Your task to perform on an android device: Search for razer blade on amazon, select the first entry, and add it to the cart. Image 0: 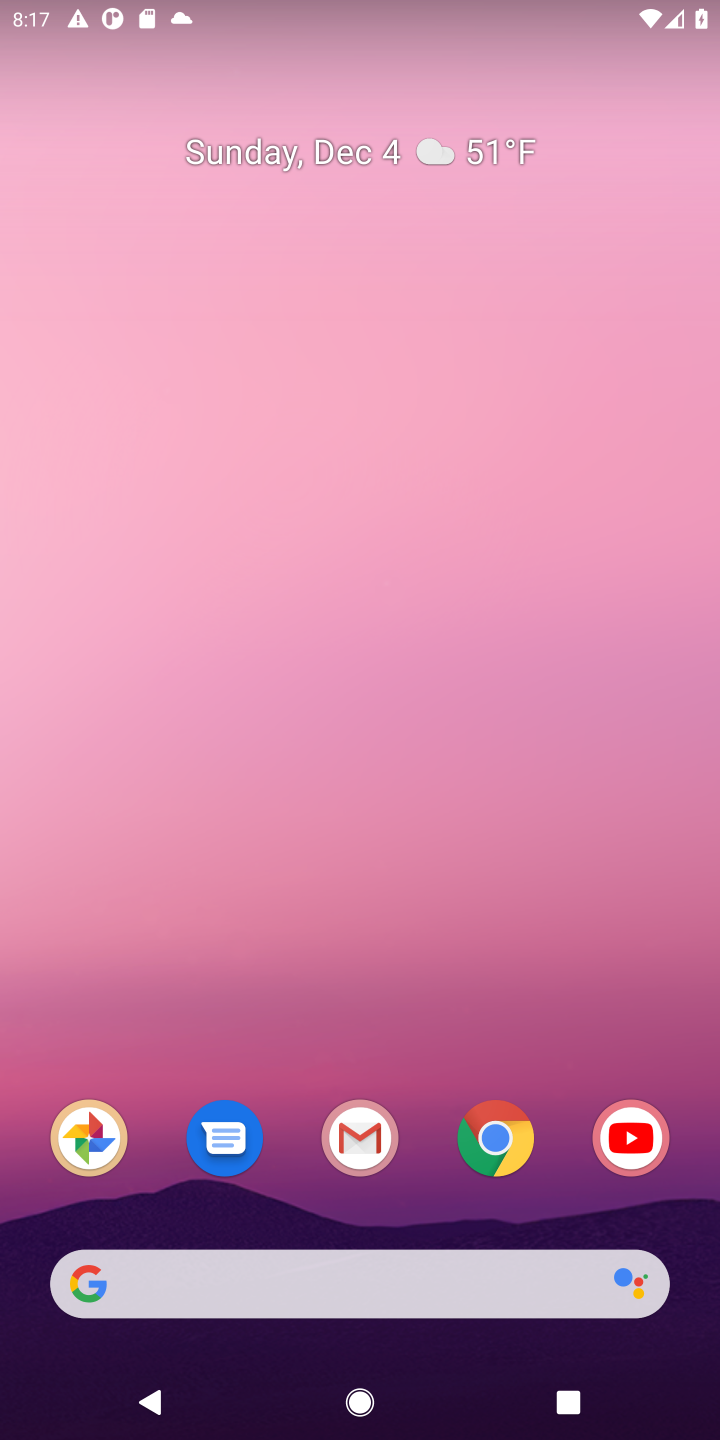
Step 0: click (514, 1146)
Your task to perform on an android device: Search for razer blade on amazon, select the first entry, and add it to the cart. Image 1: 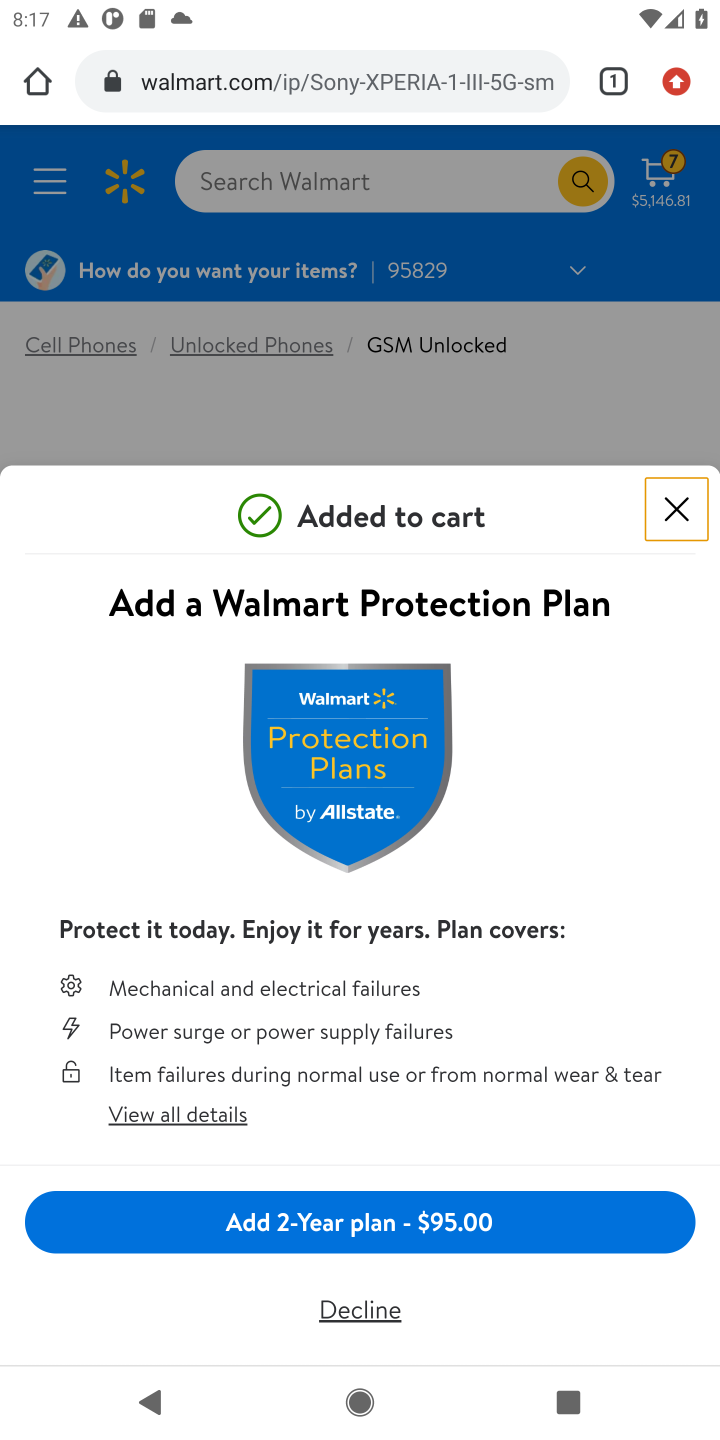
Step 1: click (336, 77)
Your task to perform on an android device: Search for razer blade on amazon, select the first entry, and add it to the cart. Image 2: 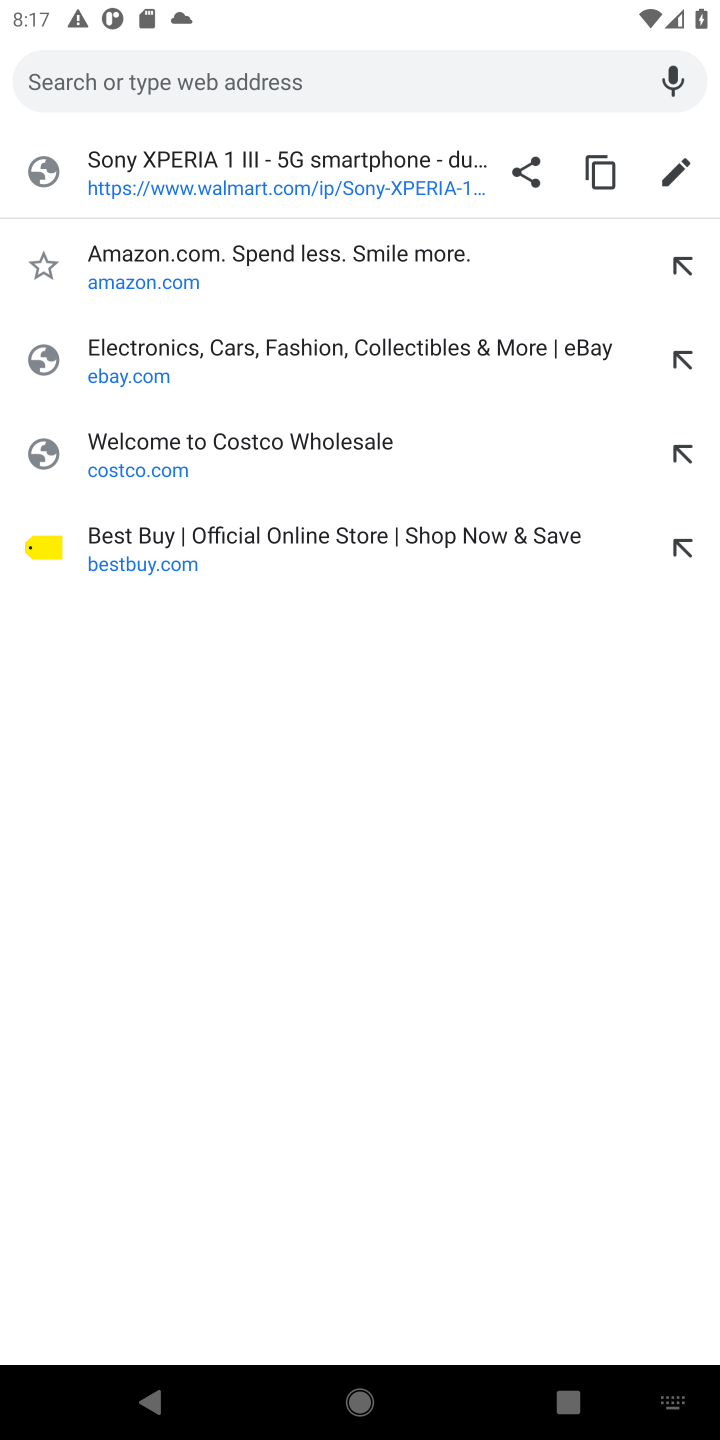
Step 2: click (207, 243)
Your task to perform on an android device: Search for razer blade on amazon, select the first entry, and add it to the cart. Image 3: 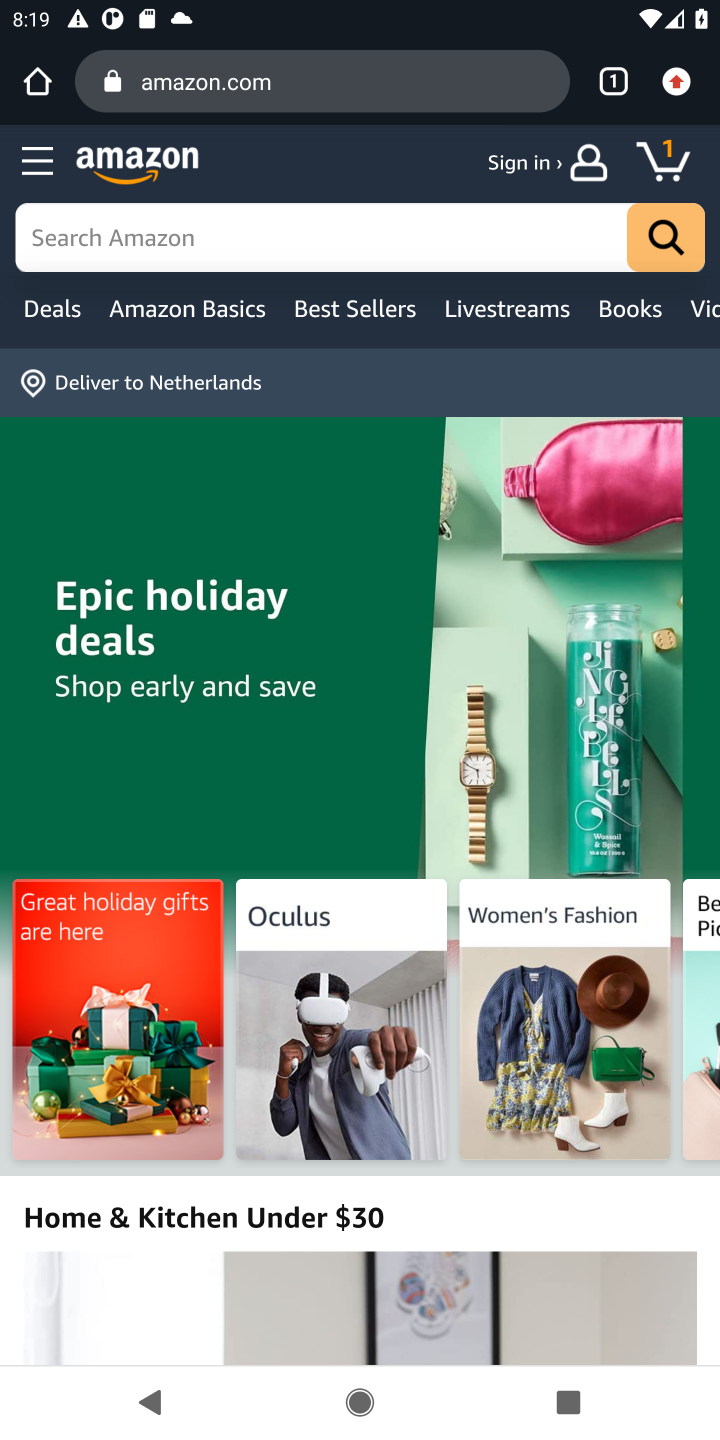
Step 3: click (398, 242)
Your task to perform on an android device: Search for razer blade on amazon, select the first entry, and add it to the cart. Image 4: 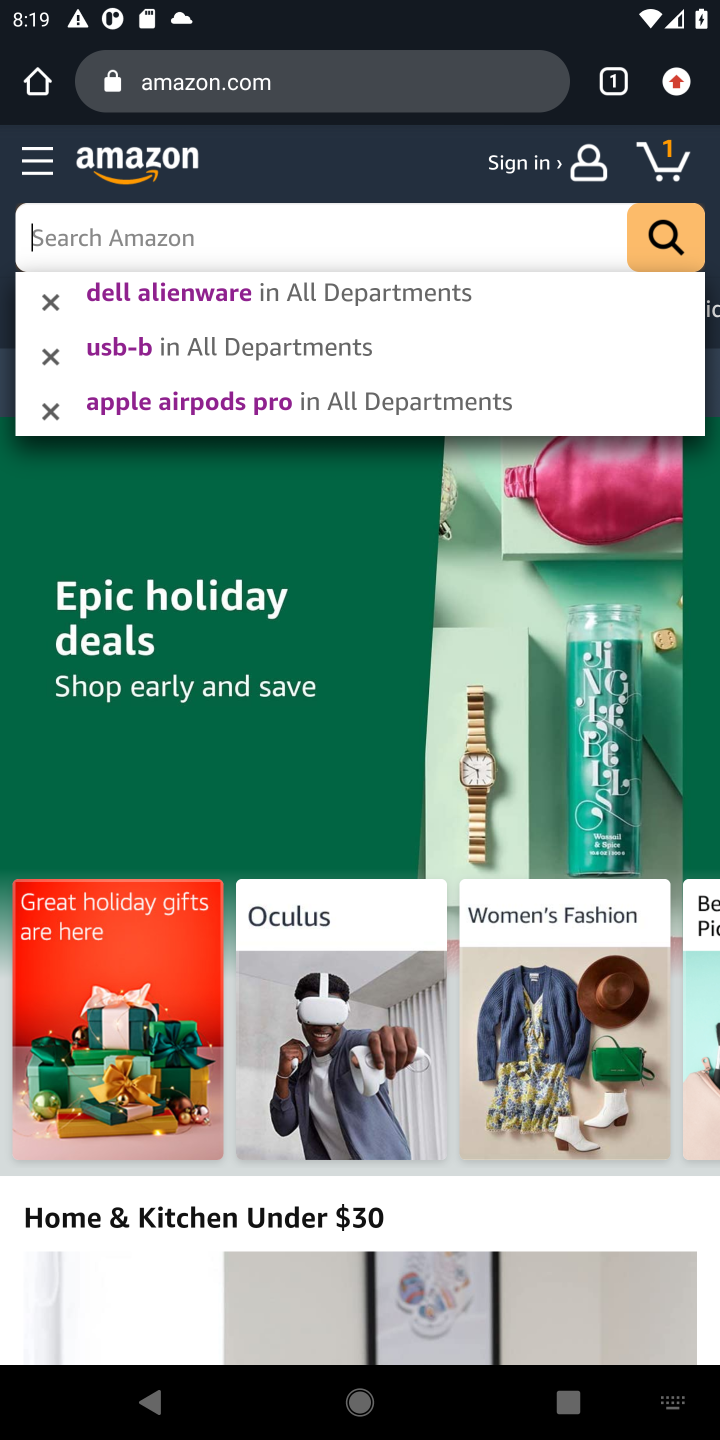
Step 4: press enter
Your task to perform on an android device: Search for razer blade on amazon, select the first entry, and add it to the cart. Image 5: 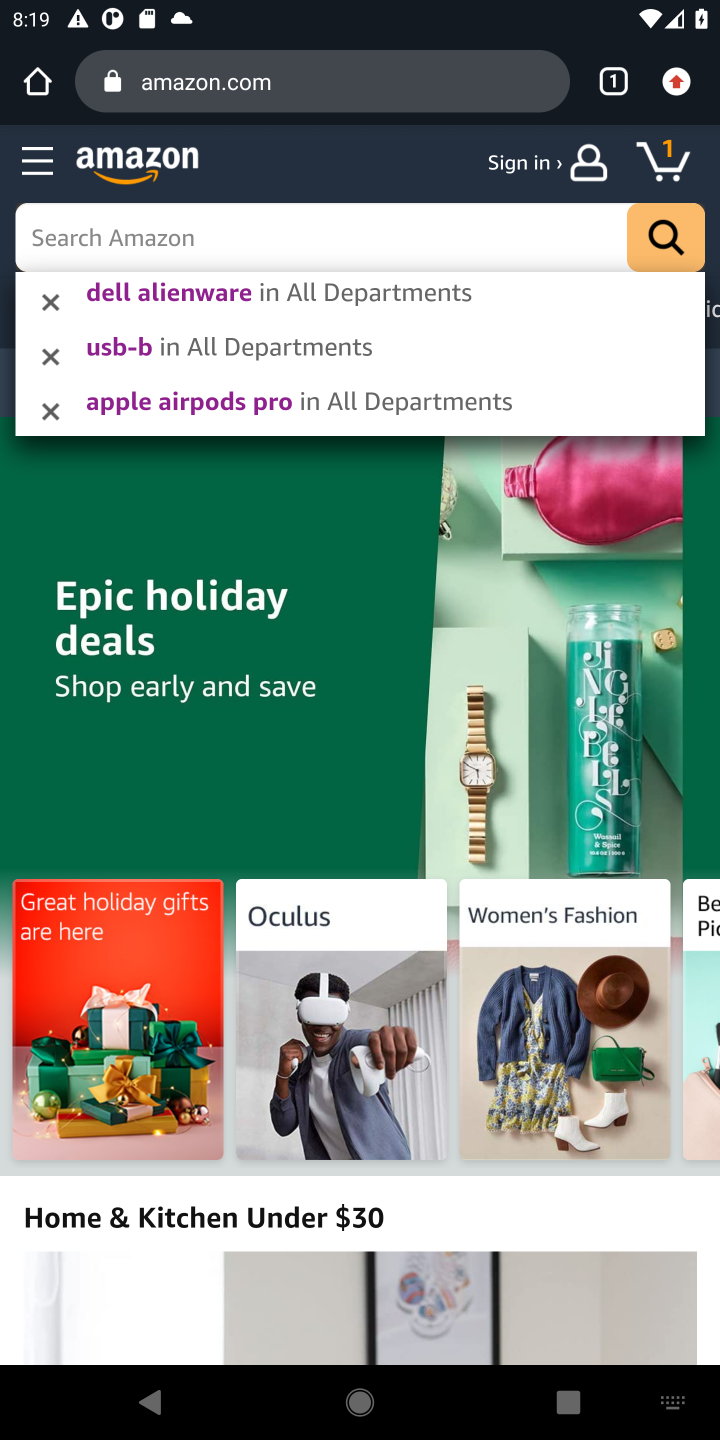
Step 5: type "razer blade"
Your task to perform on an android device: Search for razer blade on amazon, select the first entry, and add it to the cart. Image 6: 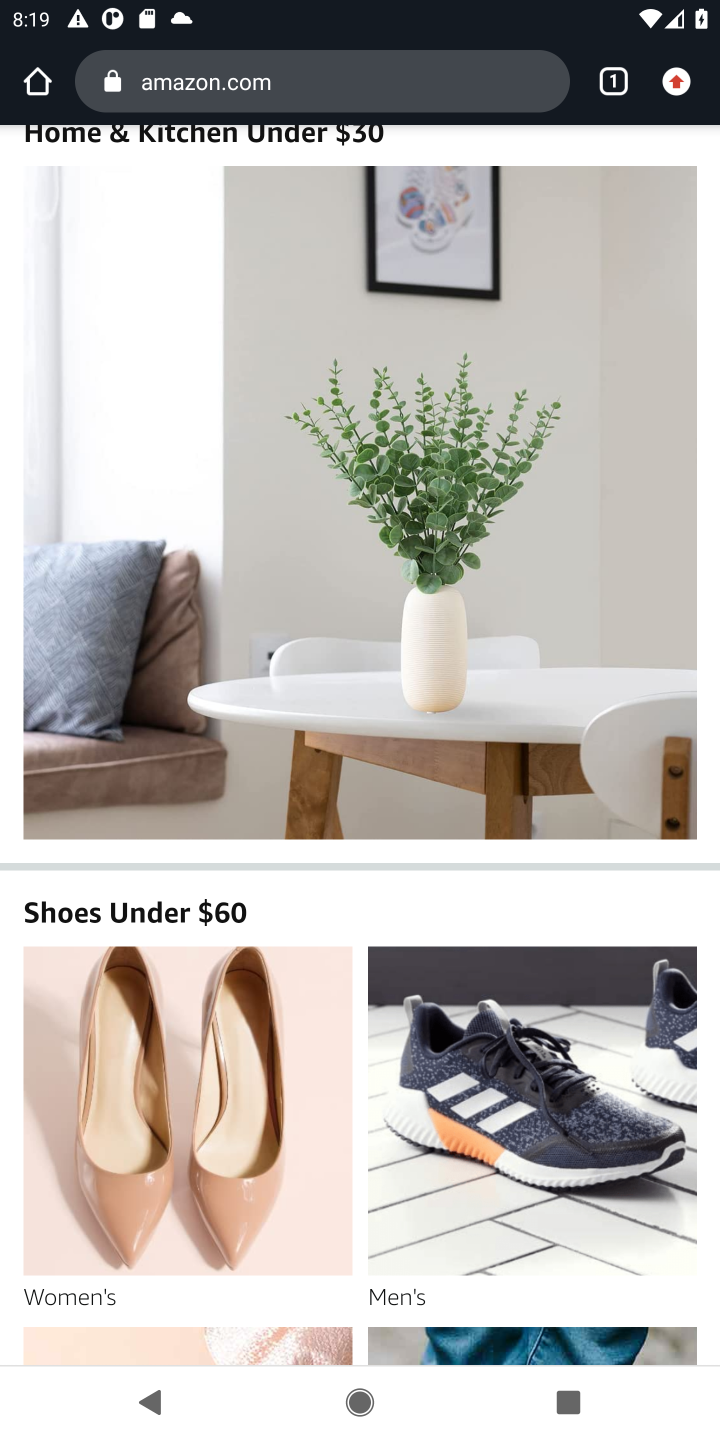
Step 6: drag from (538, 520) to (649, 1138)
Your task to perform on an android device: Search for razer blade on amazon, select the first entry, and add it to the cart. Image 7: 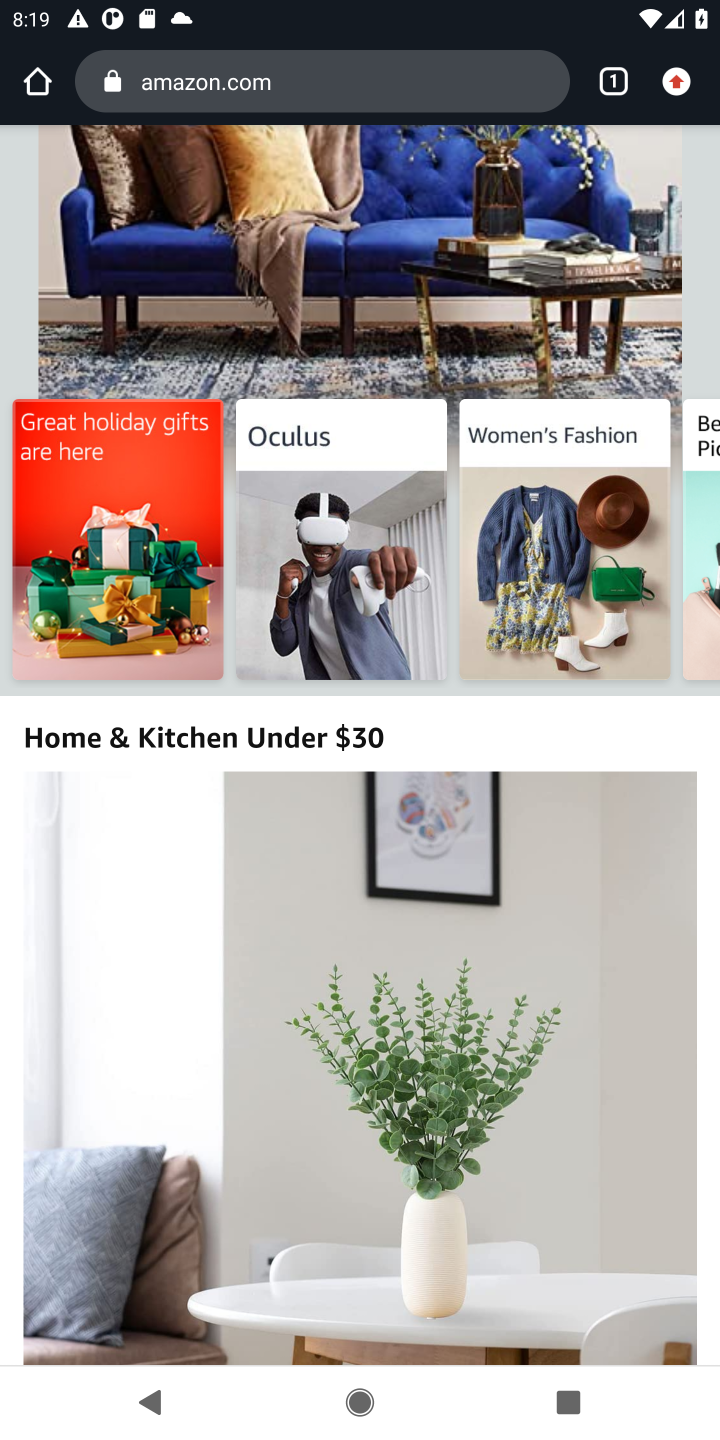
Step 7: drag from (495, 595) to (585, 854)
Your task to perform on an android device: Search for razer blade on amazon, select the first entry, and add it to the cart. Image 8: 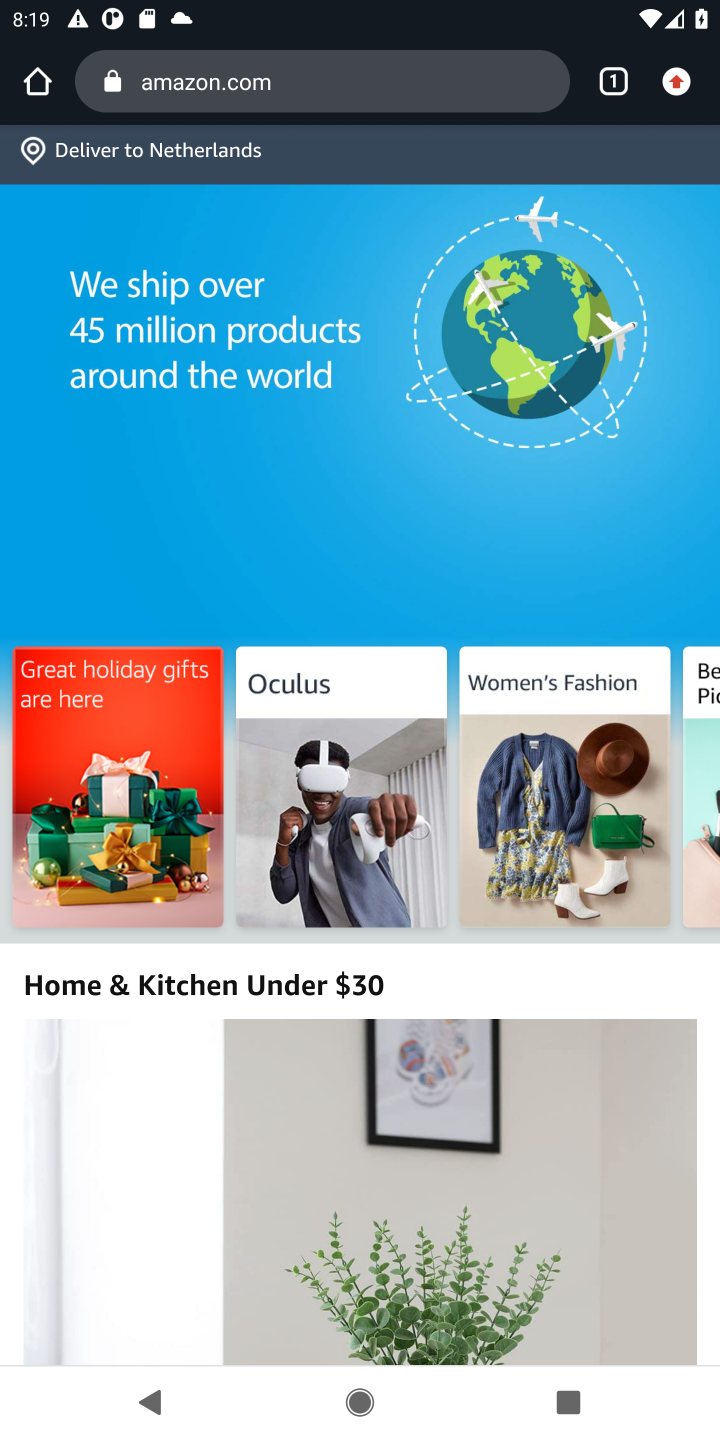
Step 8: drag from (370, 355) to (609, 825)
Your task to perform on an android device: Search for razer blade on amazon, select the first entry, and add it to the cart. Image 9: 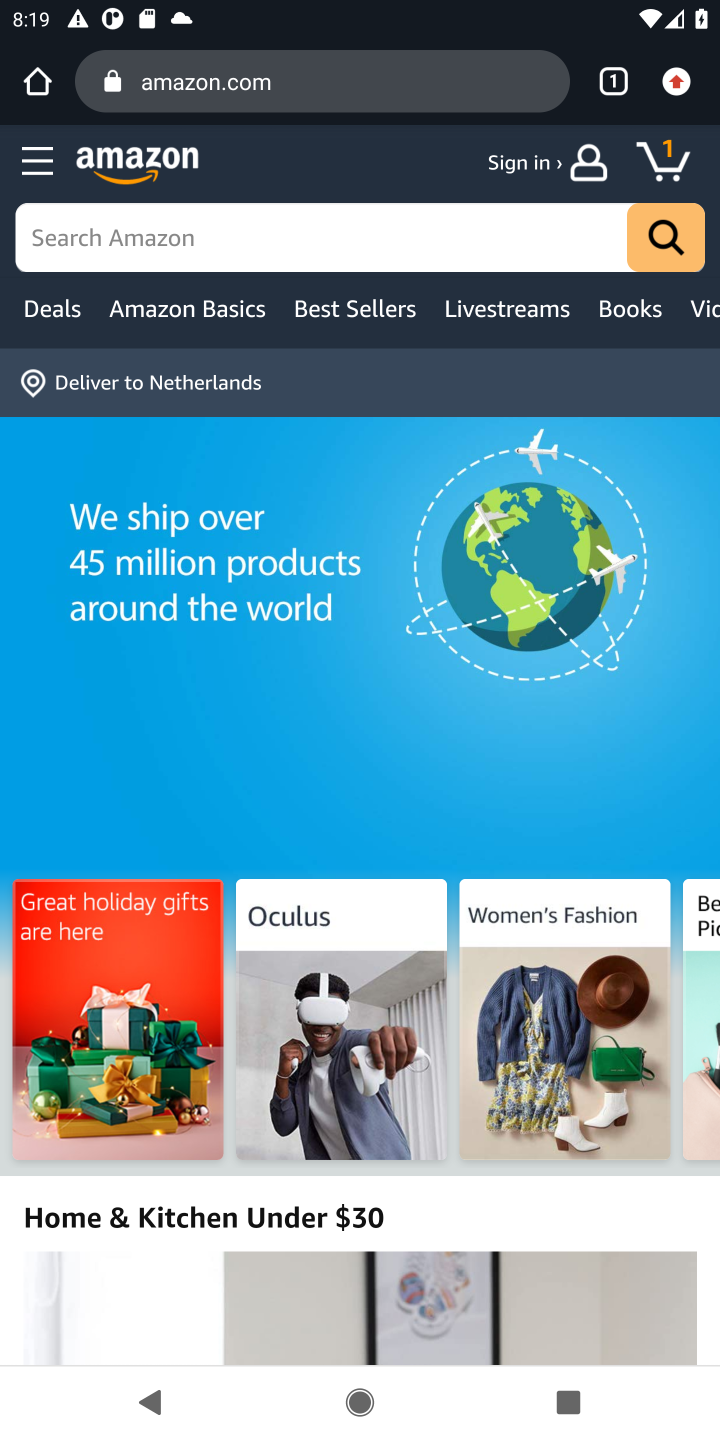
Step 9: click (504, 240)
Your task to perform on an android device: Search for razer blade on amazon, select the first entry, and add it to the cart. Image 10: 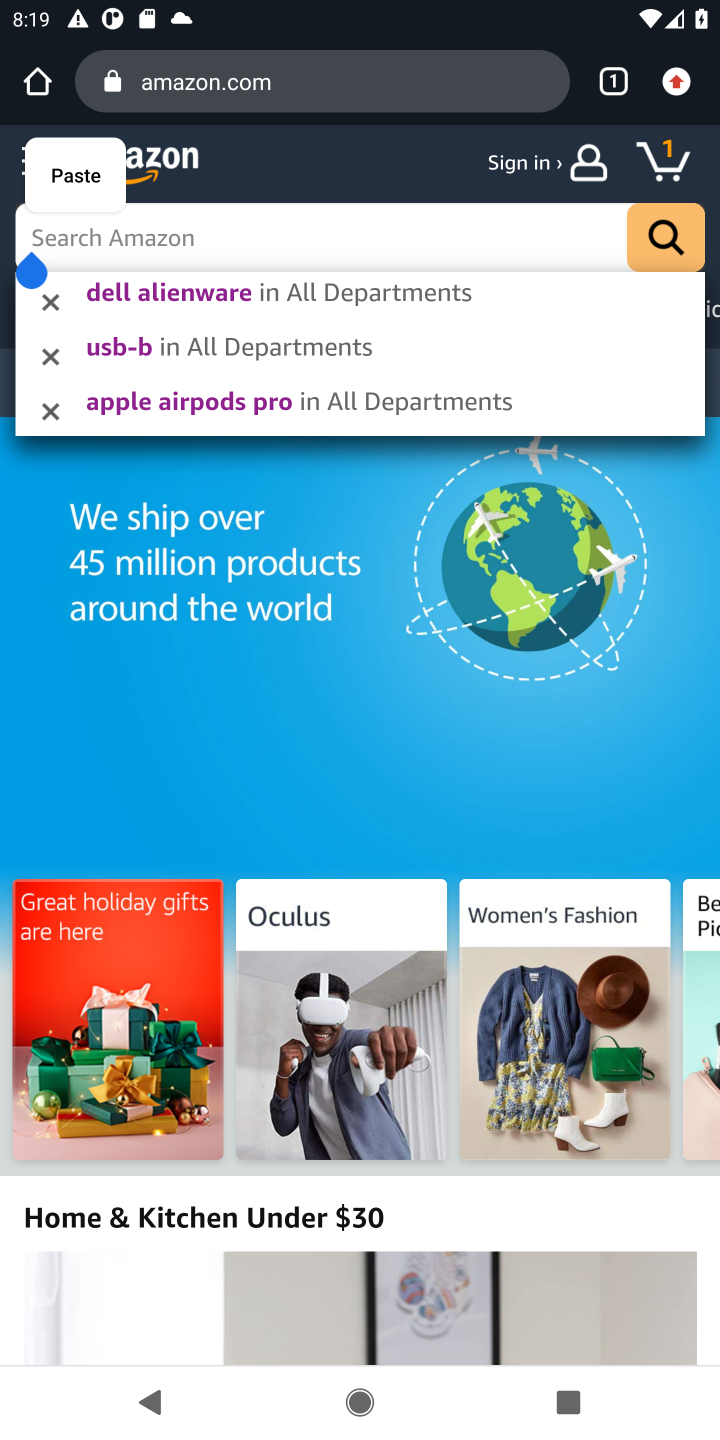
Step 10: press enter
Your task to perform on an android device: Search for razer blade on amazon, select the first entry, and add it to the cart. Image 11: 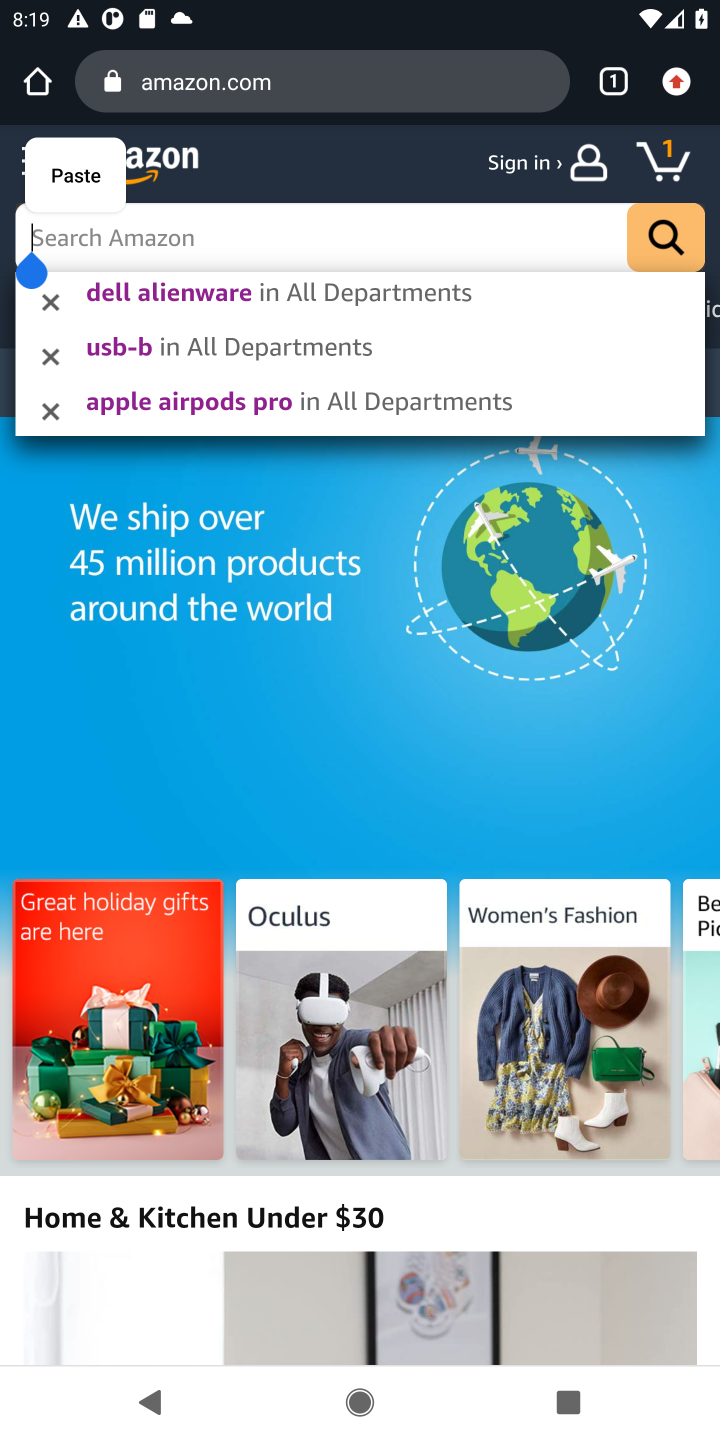
Step 11: type "razer blade"
Your task to perform on an android device: Search for razer blade on amazon, select the first entry, and add it to the cart. Image 12: 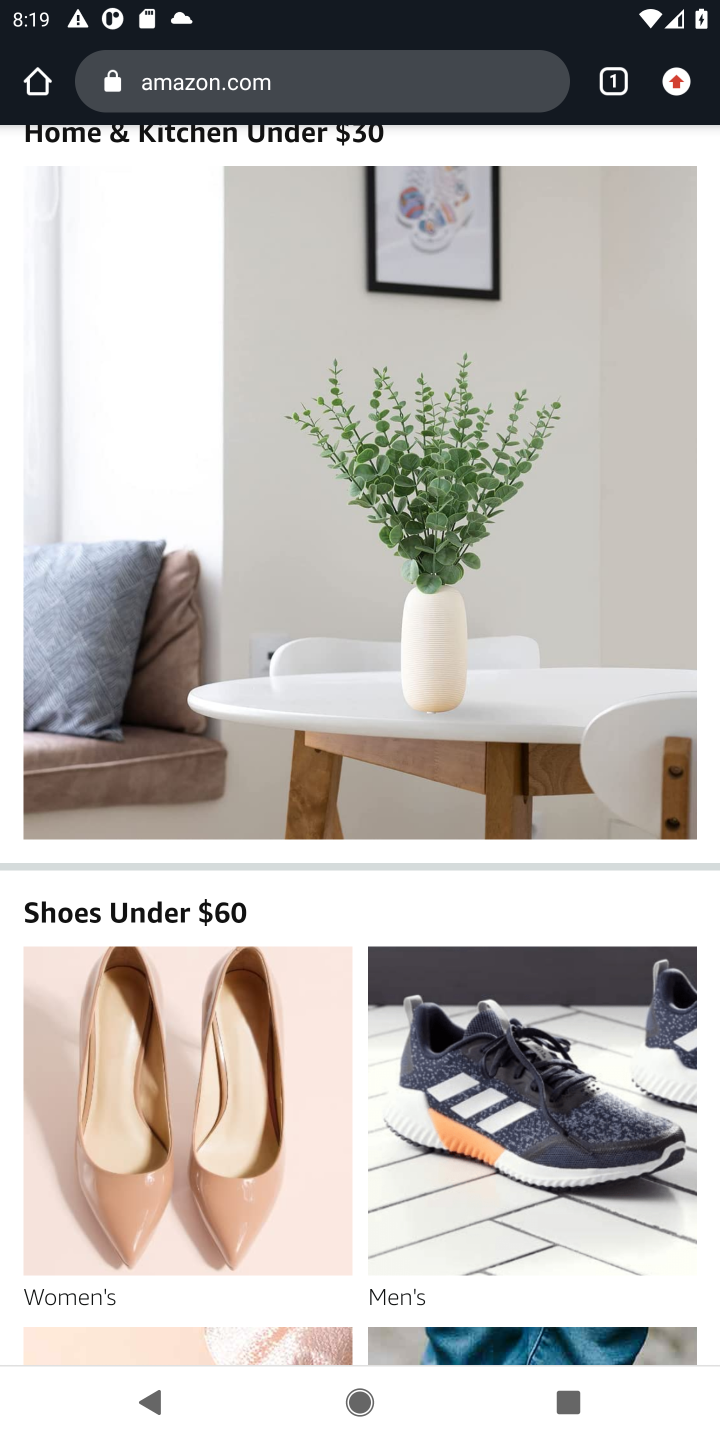
Step 12: task complete